Your task to perform on an android device: Go to sound settings Image 0: 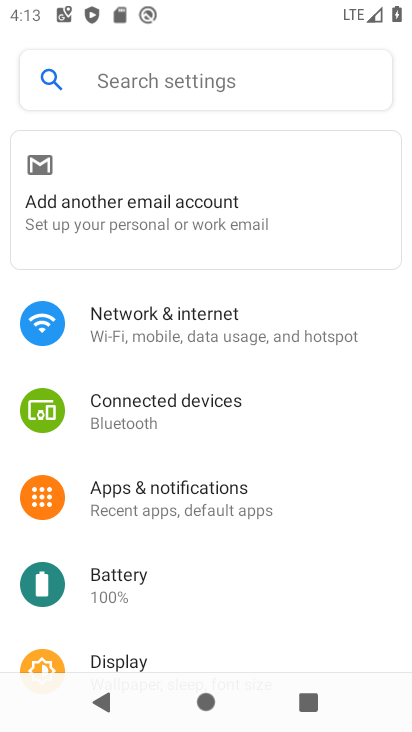
Step 0: drag from (336, 609) to (329, 145)
Your task to perform on an android device: Go to sound settings Image 1: 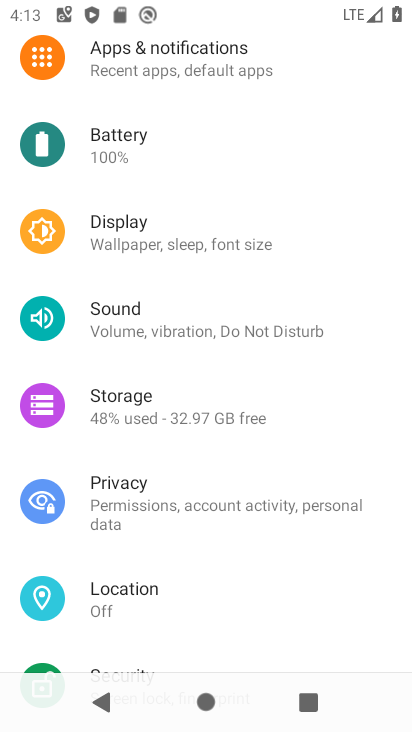
Step 1: click (175, 340)
Your task to perform on an android device: Go to sound settings Image 2: 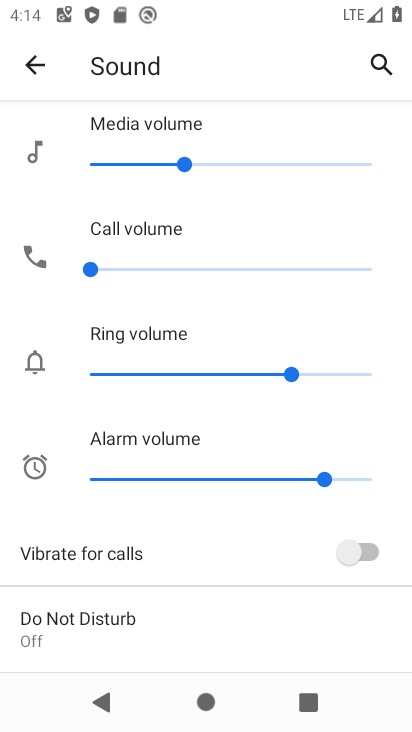
Step 2: task complete